Your task to perform on an android device: Go to Reddit.com Image 0: 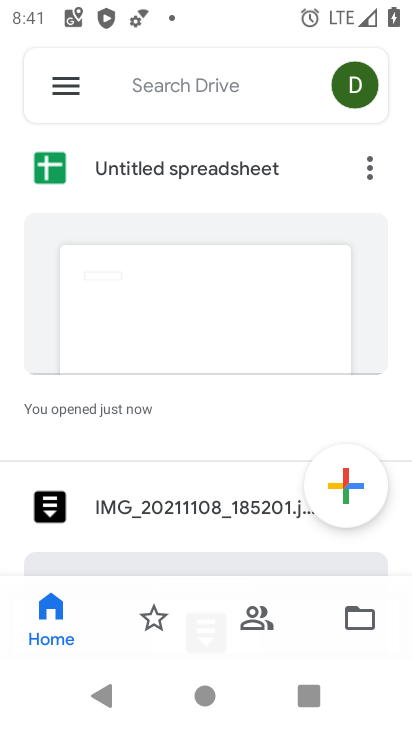
Step 0: press home button
Your task to perform on an android device: Go to Reddit.com Image 1: 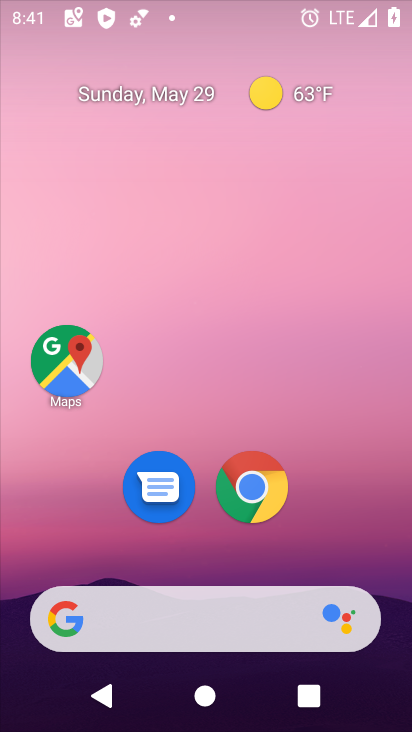
Step 1: drag from (186, 662) to (283, 139)
Your task to perform on an android device: Go to Reddit.com Image 2: 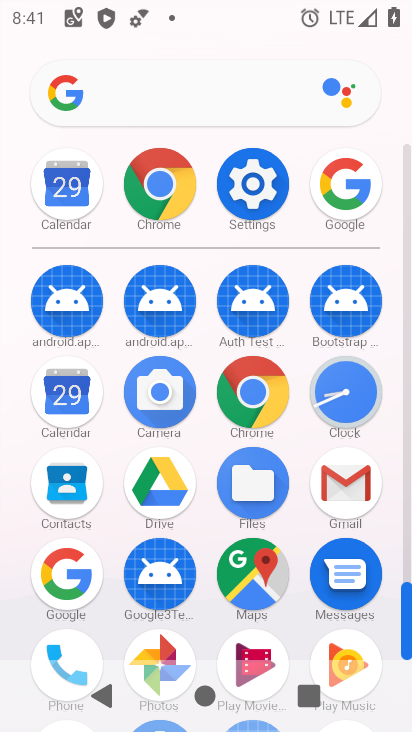
Step 2: click (165, 194)
Your task to perform on an android device: Go to Reddit.com Image 3: 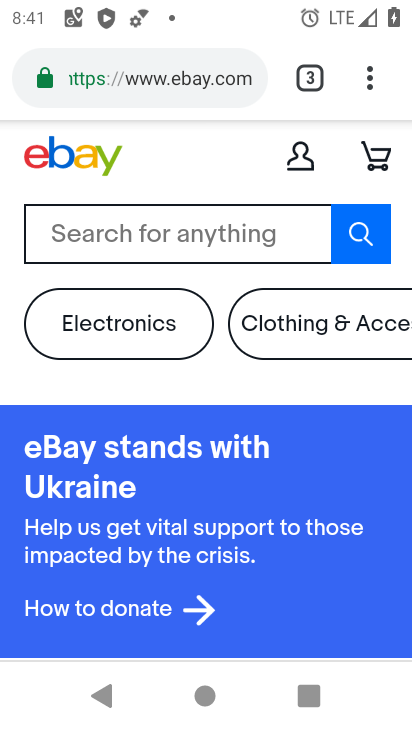
Step 3: click (215, 76)
Your task to perform on an android device: Go to Reddit.com Image 4: 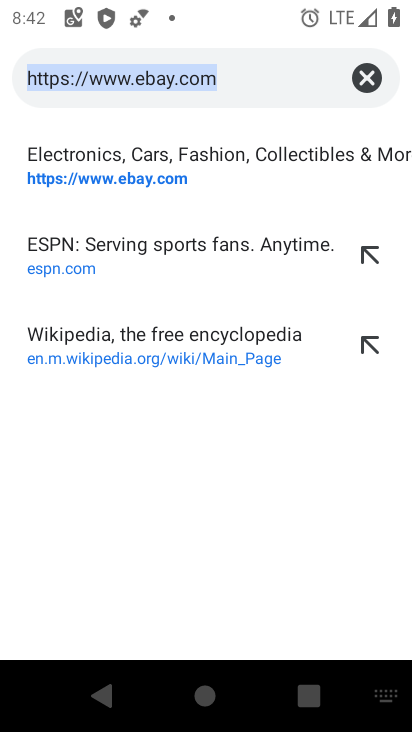
Step 4: type "reddit"
Your task to perform on an android device: Go to Reddit.com Image 5: 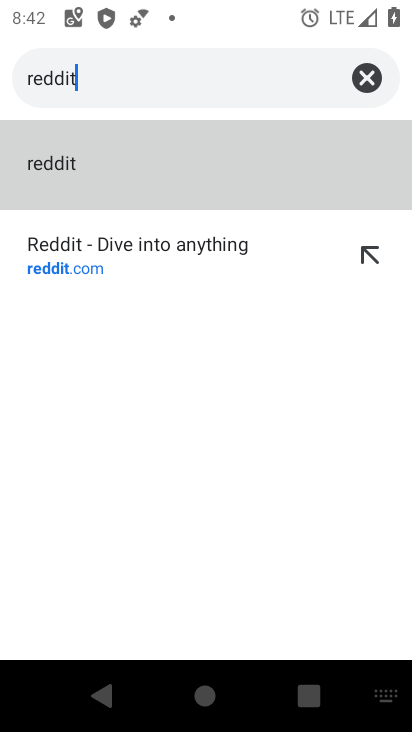
Step 5: click (160, 252)
Your task to perform on an android device: Go to Reddit.com Image 6: 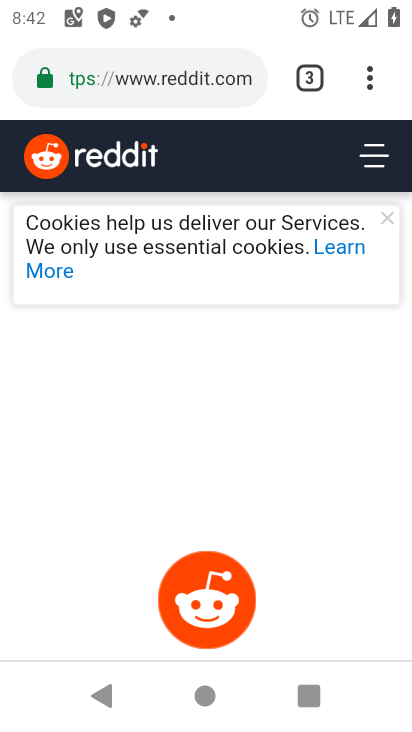
Step 6: task complete